Your task to perform on an android device: Open ESPN.com Image 0: 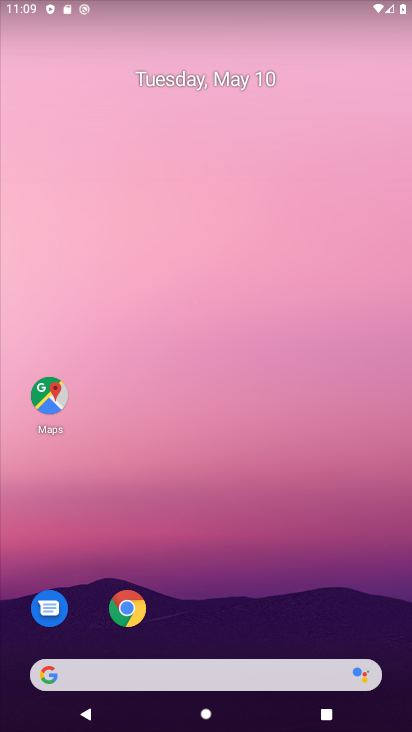
Step 0: click (307, 677)
Your task to perform on an android device: Open ESPN.com Image 1: 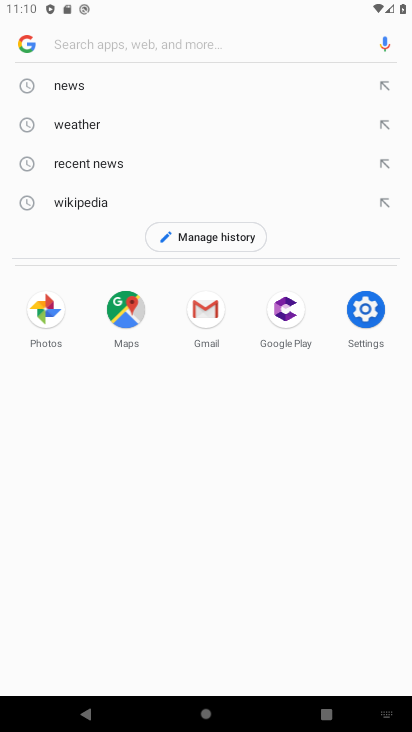
Step 1: type "espn.com"
Your task to perform on an android device: Open ESPN.com Image 2: 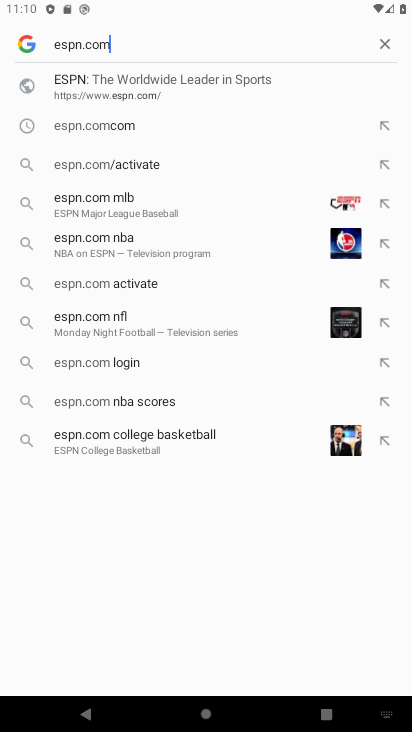
Step 2: click (62, 86)
Your task to perform on an android device: Open ESPN.com Image 3: 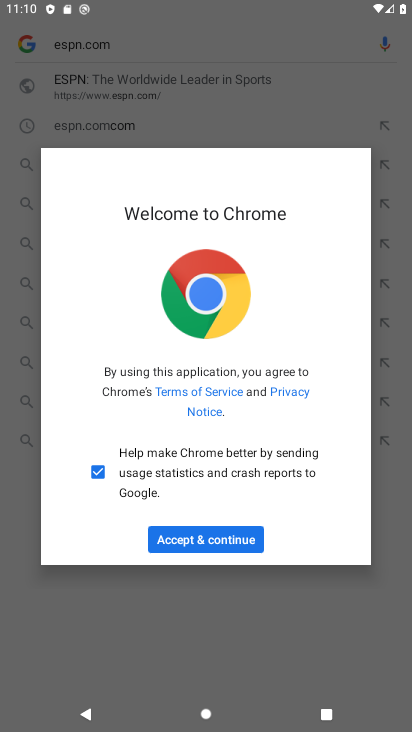
Step 3: click (203, 535)
Your task to perform on an android device: Open ESPN.com Image 4: 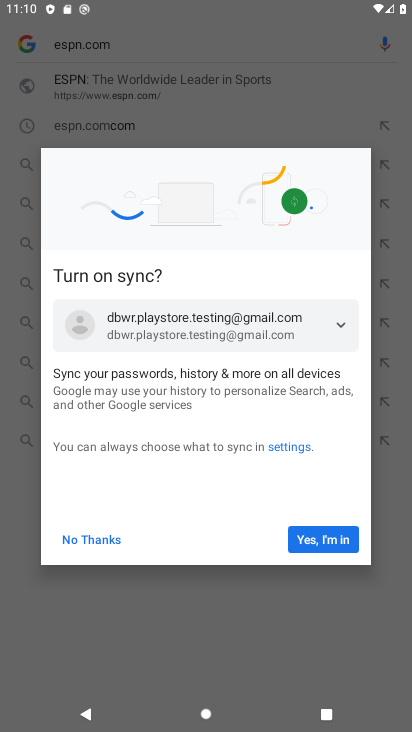
Step 4: click (314, 537)
Your task to perform on an android device: Open ESPN.com Image 5: 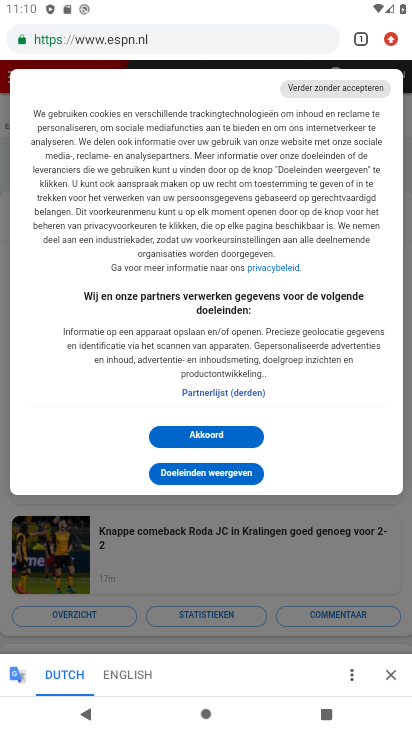
Step 5: task complete